Your task to perform on an android device: What is the capital of Norway? Image 0: 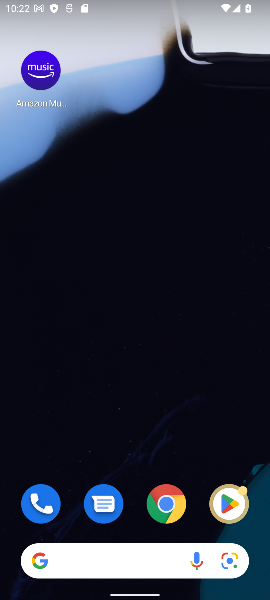
Step 0: click (165, 501)
Your task to perform on an android device: What is the capital of Norway? Image 1: 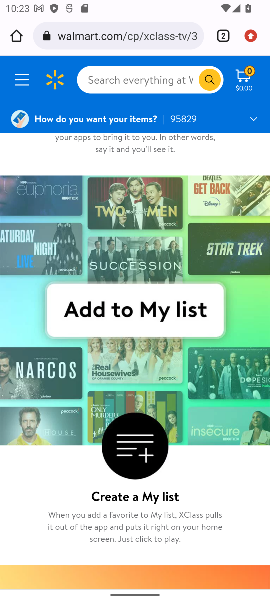
Step 1: click (121, 25)
Your task to perform on an android device: What is the capital of Norway? Image 2: 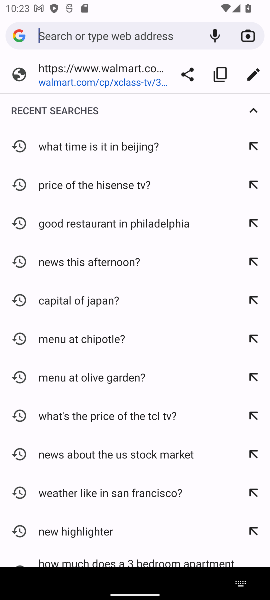
Step 2: type "capital of Norway?"
Your task to perform on an android device: What is the capital of Norway? Image 3: 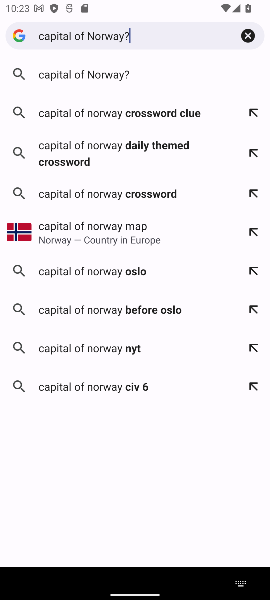
Step 3: click (83, 71)
Your task to perform on an android device: What is the capital of Norway? Image 4: 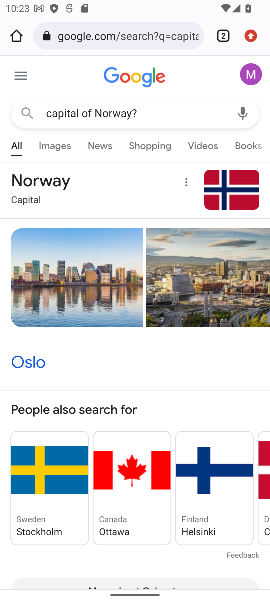
Step 4: task complete